Your task to perform on an android device: empty trash in the gmail app Image 0: 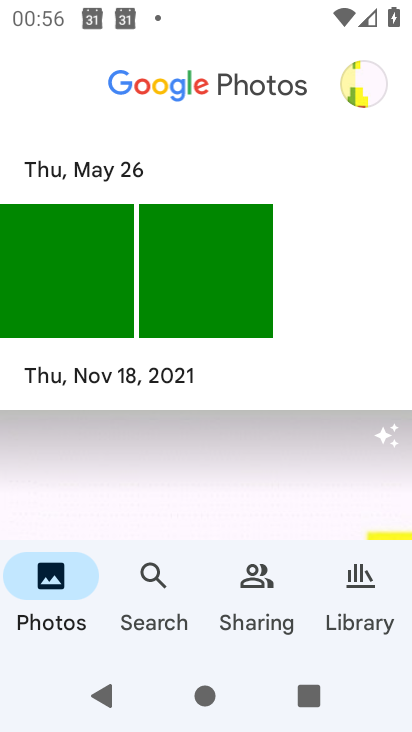
Step 0: press home button
Your task to perform on an android device: empty trash in the gmail app Image 1: 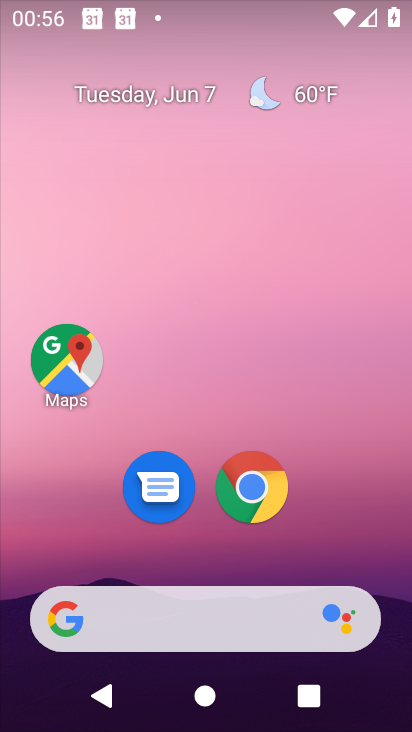
Step 1: drag from (392, 529) to (261, 147)
Your task to perform on an android device: empty trash in the gmail app Image 2: 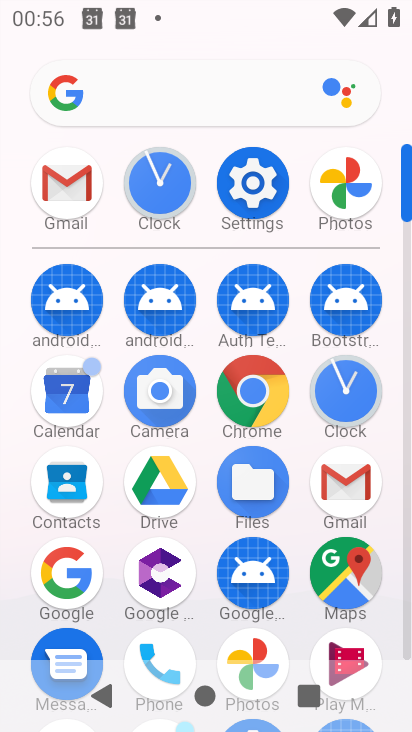
Step 2: click (58, 199)
Your task to perform on an android device: empty trash in the gmail app Image 3: 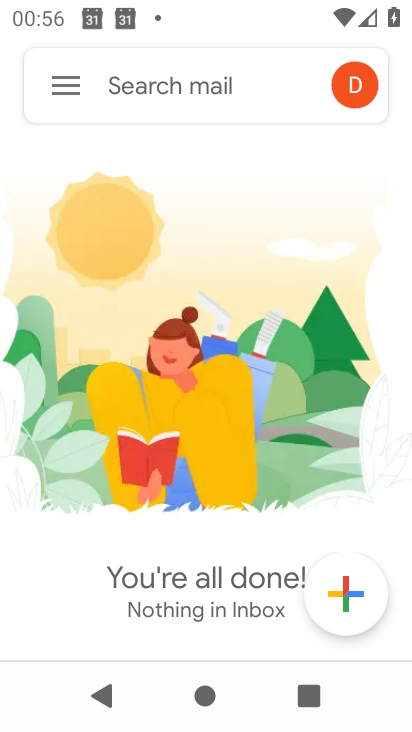
Step 3: click (61, 90)
Your task to perform on an android device: empty trash in the gmail app Image 4: 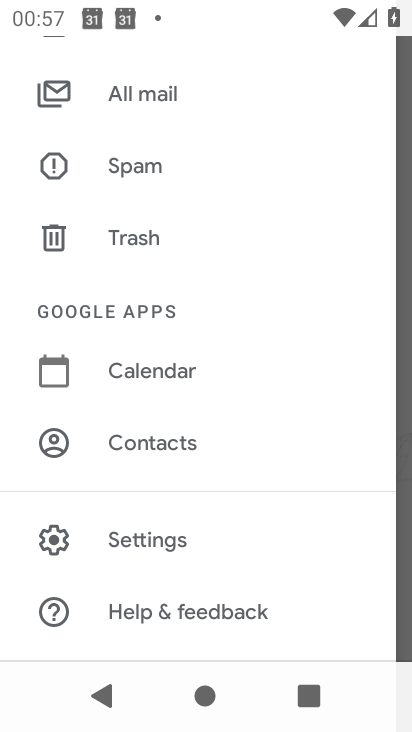
Step 4: click (150, 227)
Your task to perform on an android device: empty trash in the gmail app Image 5: 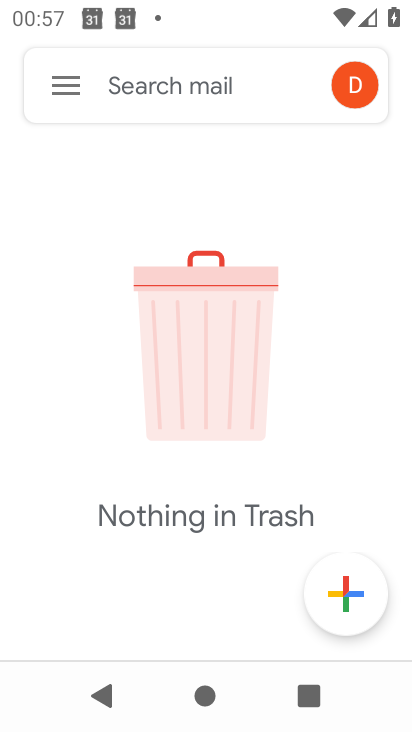
Step 5: task complete